Your task to perform on an android device: Open internet settings Image 0: 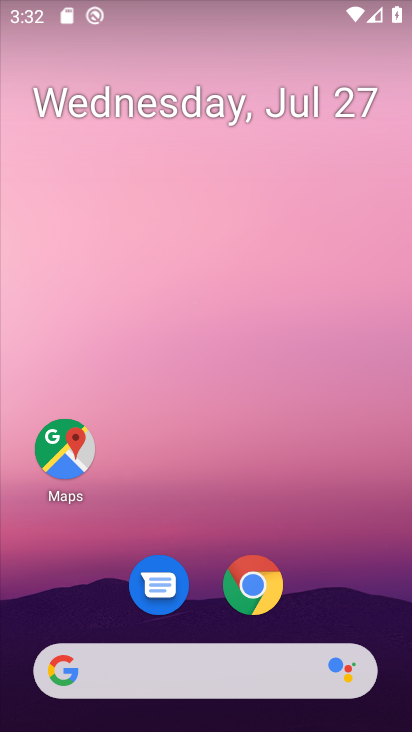
Step 0: drag from (320, 521) to (306, 139)
Your task to perform on an android device: Open internet settings Image 1: 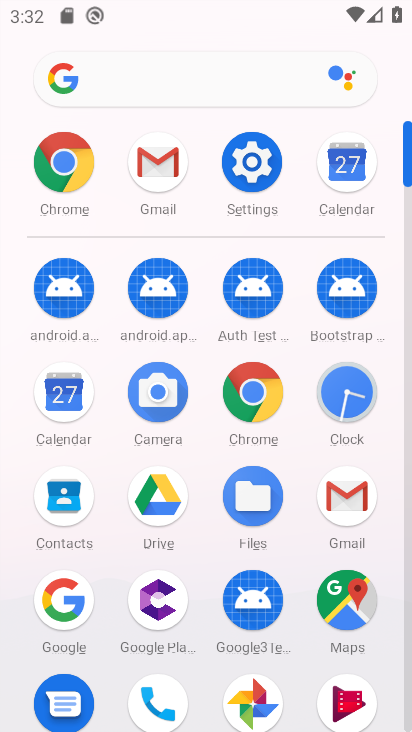
Step 1: click (250, 157)
Your task to perform on an android device: Open internet settings Image 2: 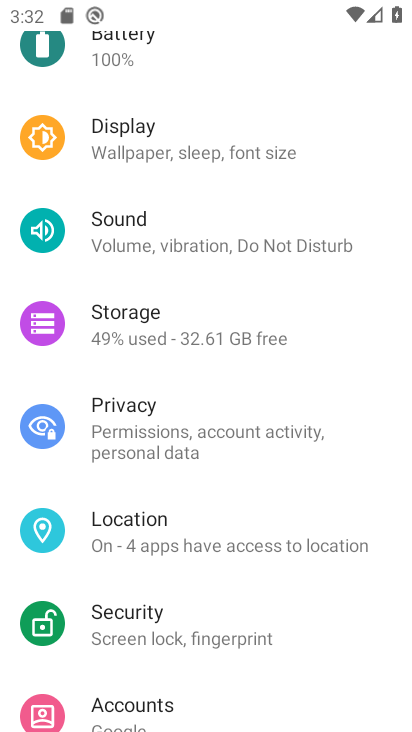
Step 2: drag from (237, 118) to (282, 391)
Your task to perform on an android device: Open internet settings Image 3: 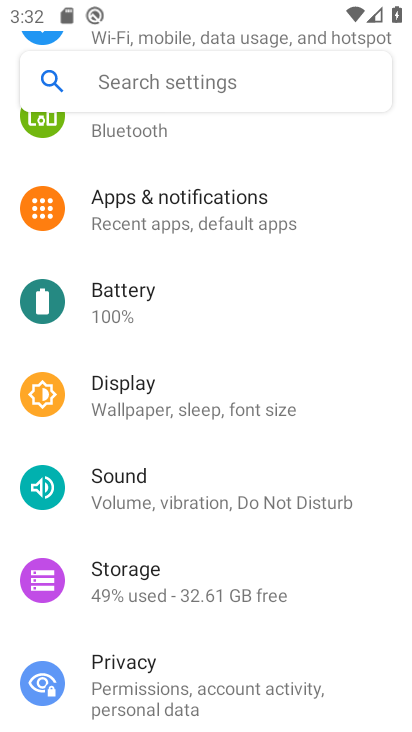
Step 3: drag from (222, 281) to (239, 521)
Your task to perform on an android device: Open internet settings Image 4: 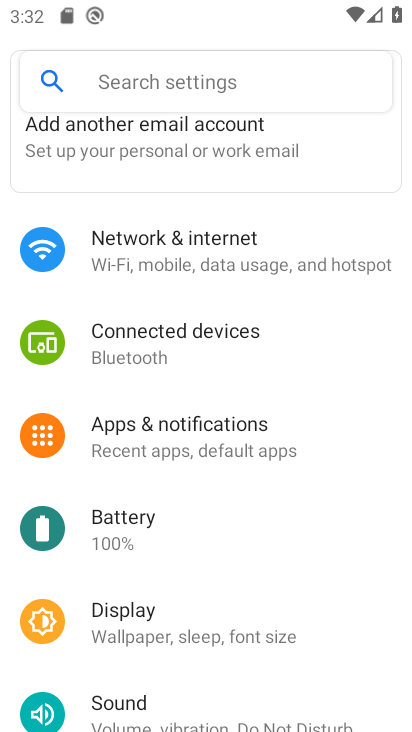
Step 4: click (215, 251)
Your task to perform on an android device: Open internet settings Image 5: 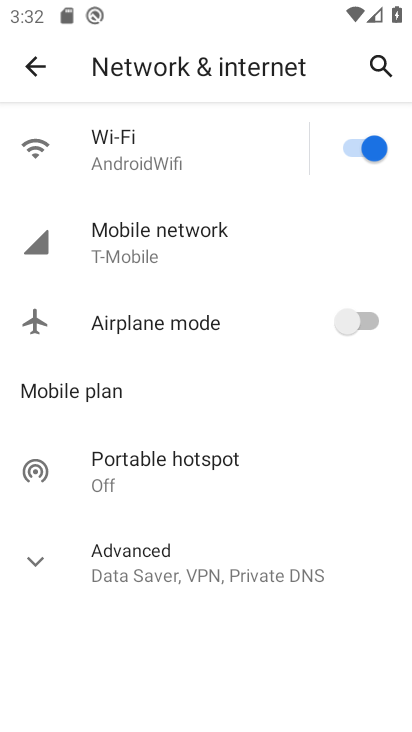
Step 5: task complete